Your task to perform on an android device: toggle javascript in the chrome app Image 0: 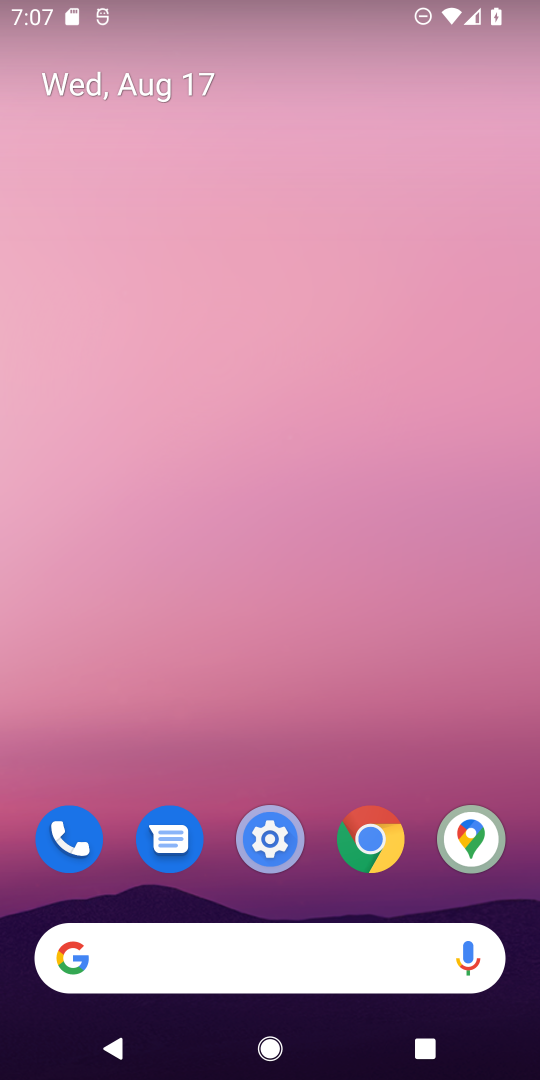
Step 0: click (406, 835)
Your task to perform on an android device: toggle javascript in the chrome app Image 1: 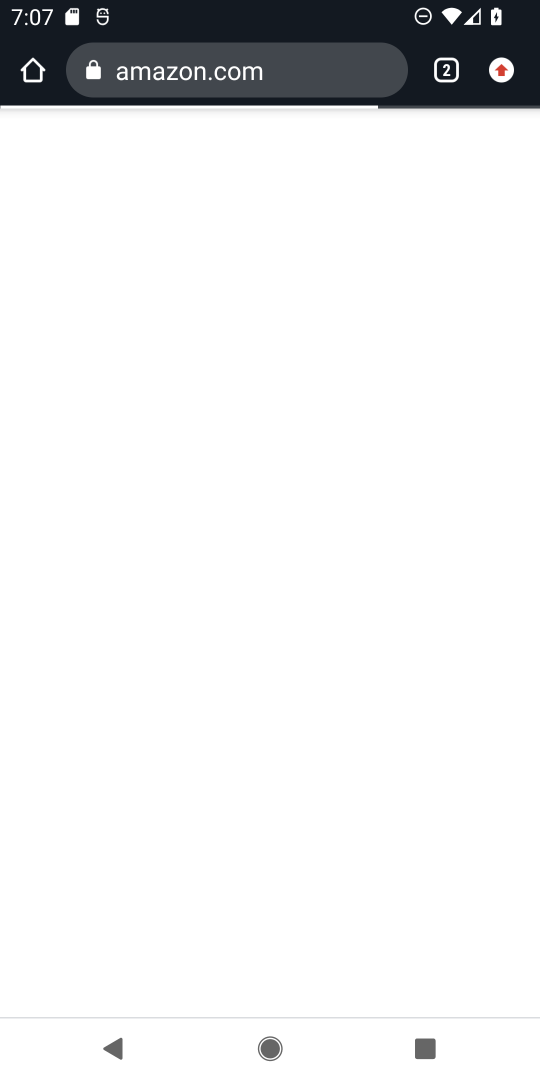
Step 1: click (507, 76)
Your task to perform on an android device: toggle javascript in the chrome app Image 2: 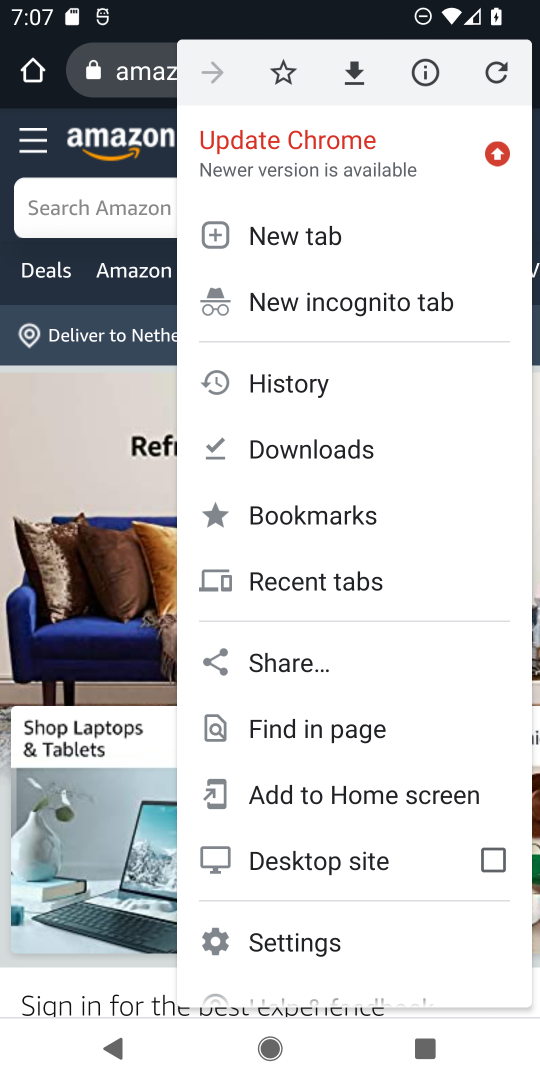
Step 2: click (256, 936)
Your task to perform on an android device: toggle javascript in the chrome app Image 3: 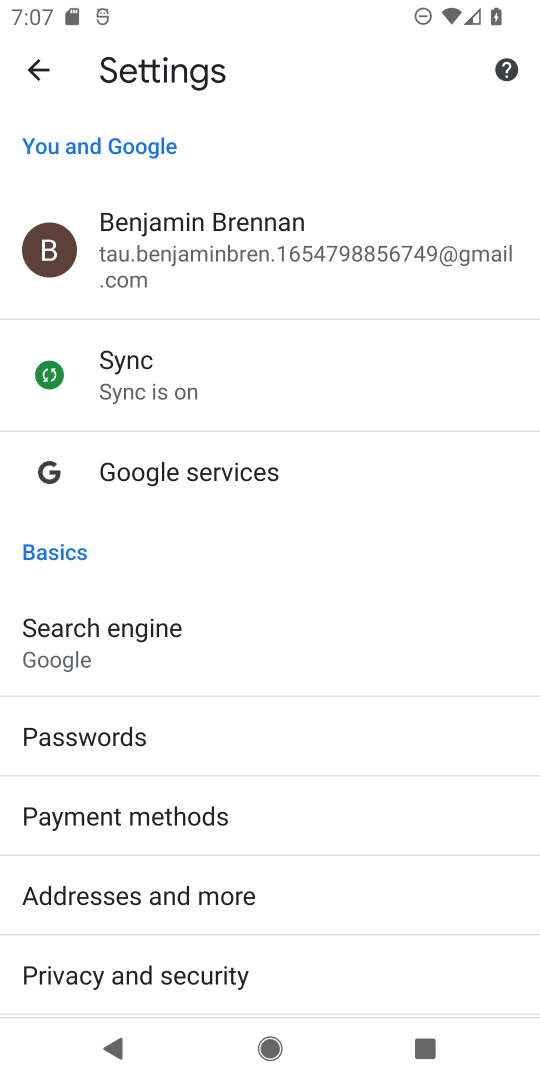
Step 3: drag from (256, 936) to (201, 222)
Your task to perform on an android device: toggle javascript in the chrome app Image 4: 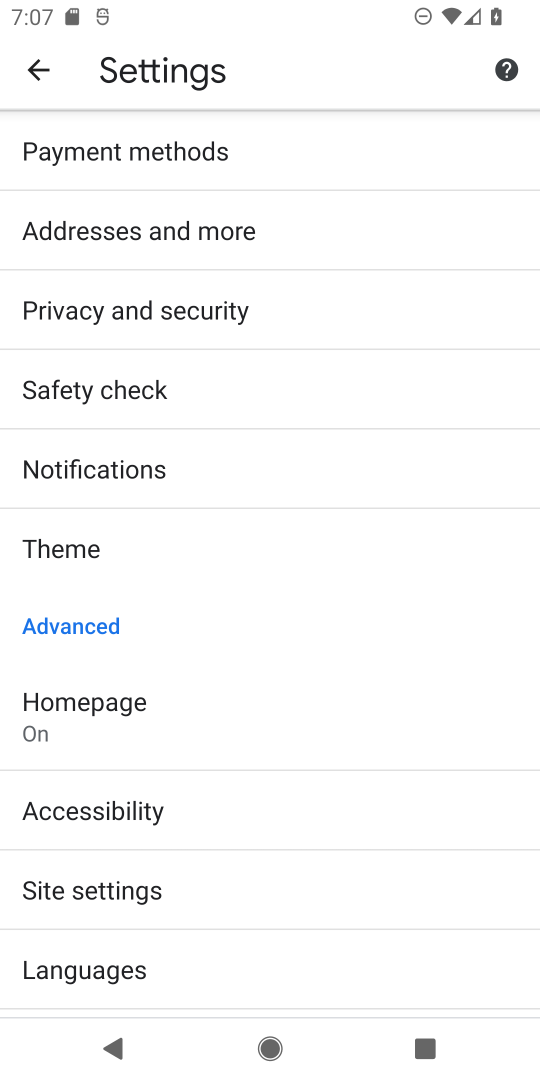
Step 4: click (85, 898)
Your task to perform on an android device: toggle javascript in the chrome app Image 5: 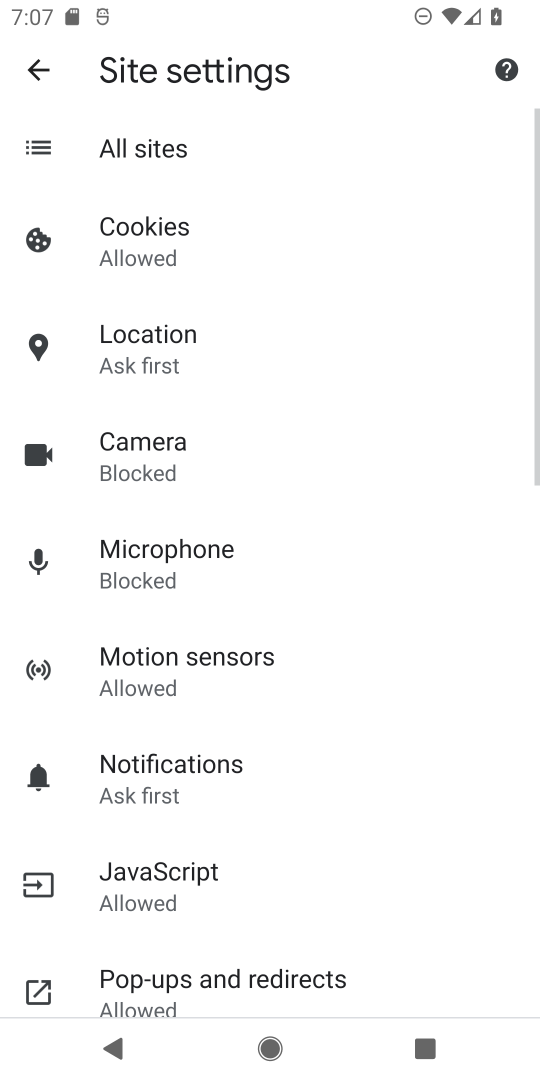
Step 5: click (85, 898)
Your task to perform on an android device: toggle javascript in the chrome app Image 6: 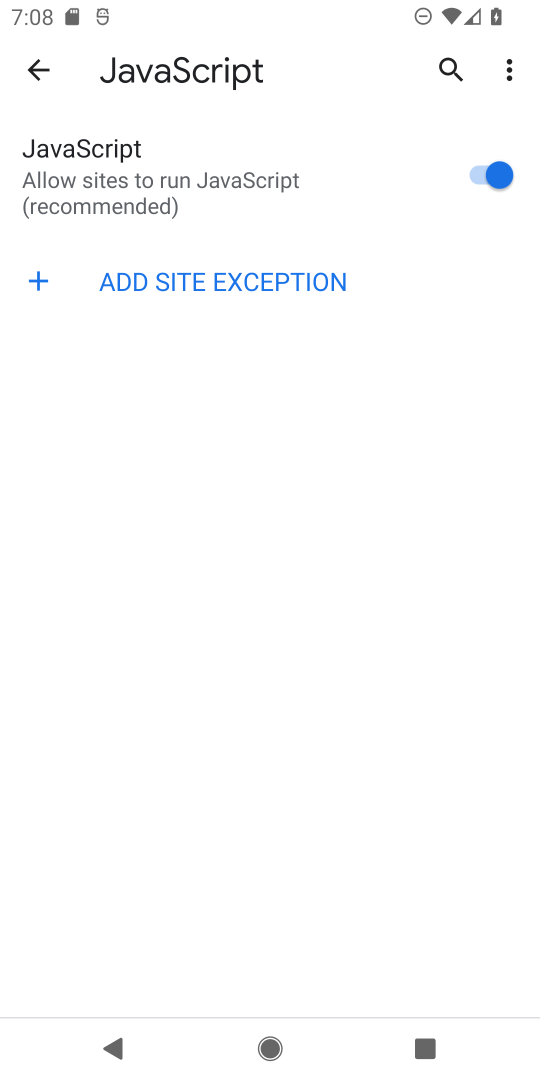
Step 6: click (500, 164)
Your task to perform on an android device: toggle javascript in the chrome app Image 7: 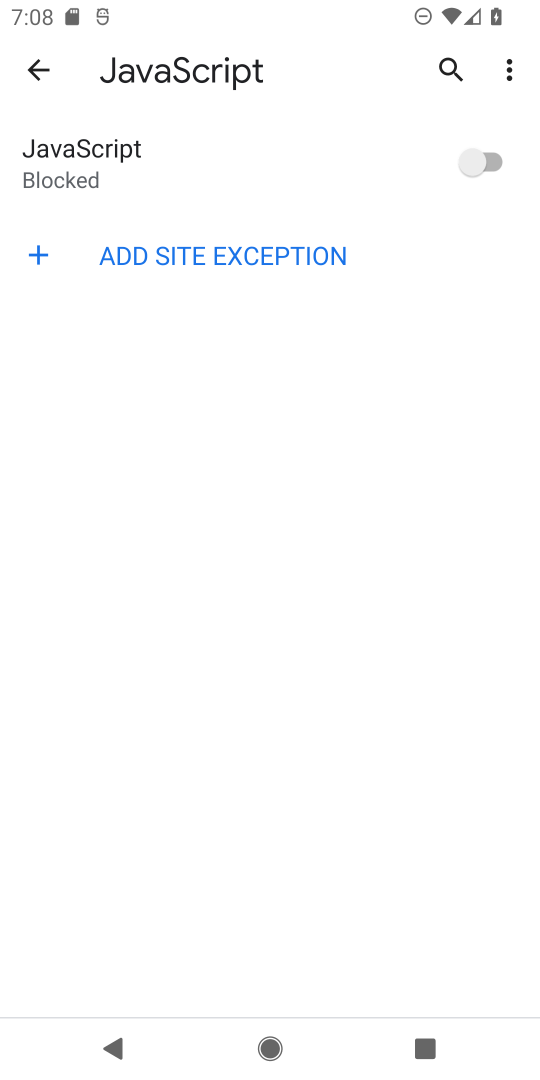
Step 7: task complete